Your task to perform on an android device: check storage Image 0: 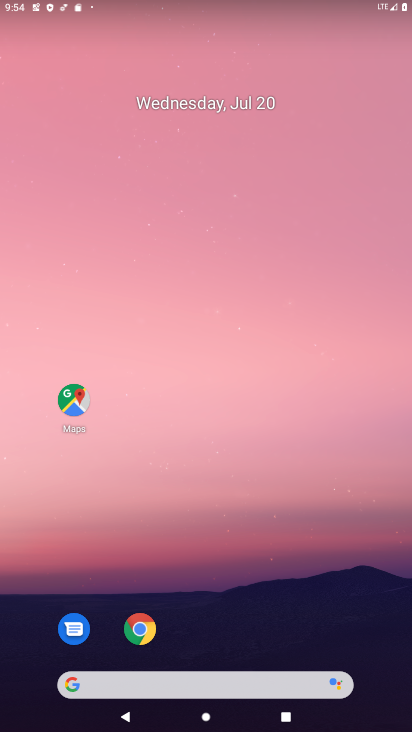
Step 0: drag from (233, 620) to (263, 15)
Your task to perform on an android device: check storage Image 1: 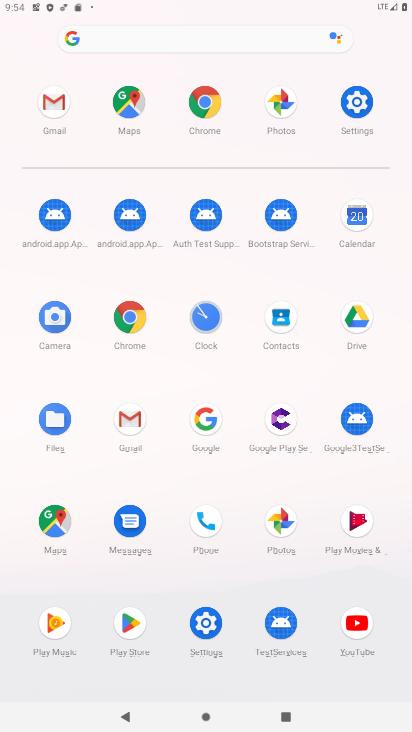
Step 1: click (351, 110)
Your task to perform on an android device: check storage Image 2: 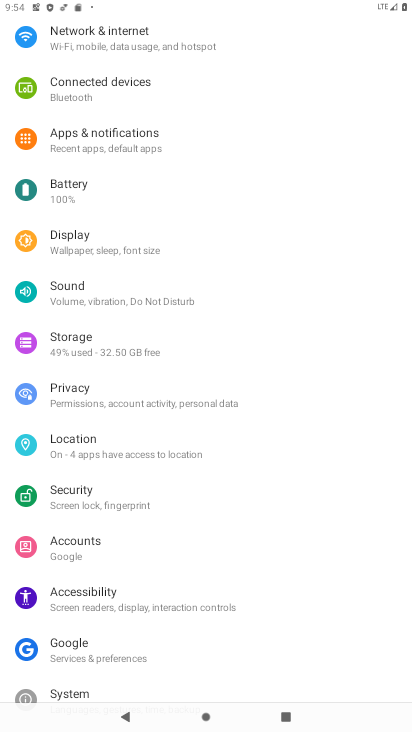
Step 2: drag from (163, 129) to (240, 585)
Your task to perform on an android device: check storage Image 3: 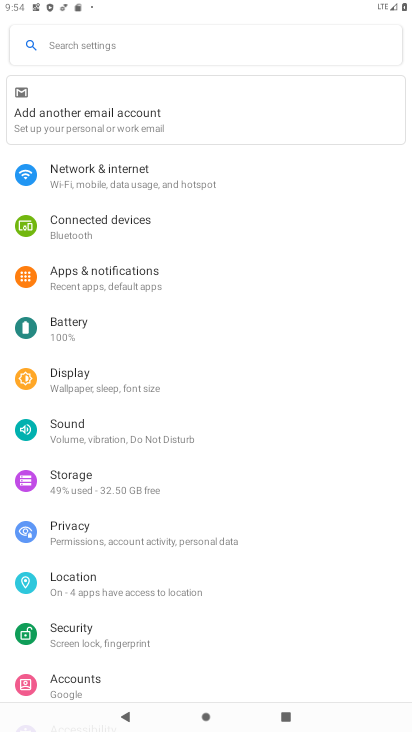
Step 3: click (88, 480)
Your task to perform on an android device: check storage Image 4: 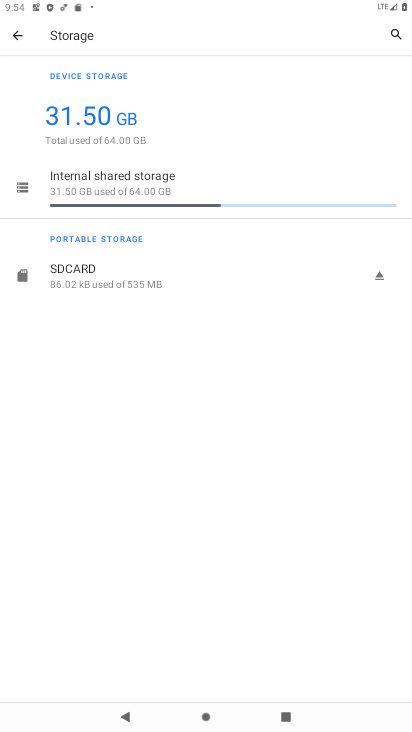
Step 4: task complete